Your task to perform on an android device: Open the phone app and click the voicemail tab. Image 0: 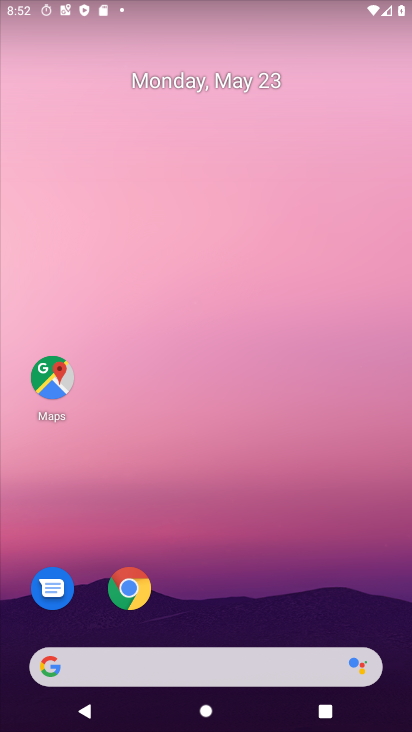
Step 0: drag from (396, 663) to (345, 91)
Your task to perform on an android device: Open the phone app and click the voicemail tab. Image 1: 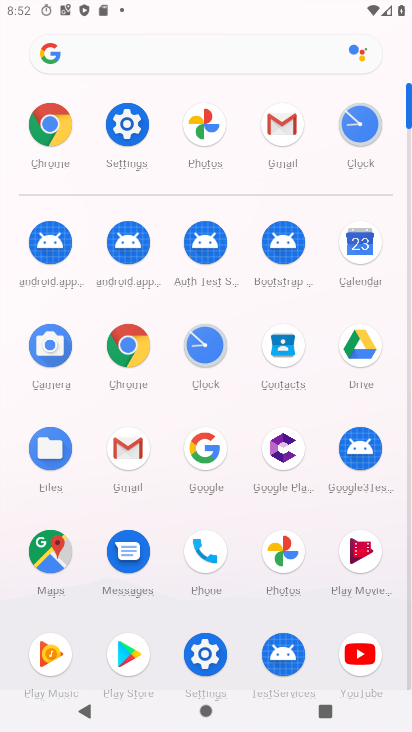
Step 1: click (192, 544)
Your task to perform on an android device: Open the phone app and click the voicemail tab. Image 2: 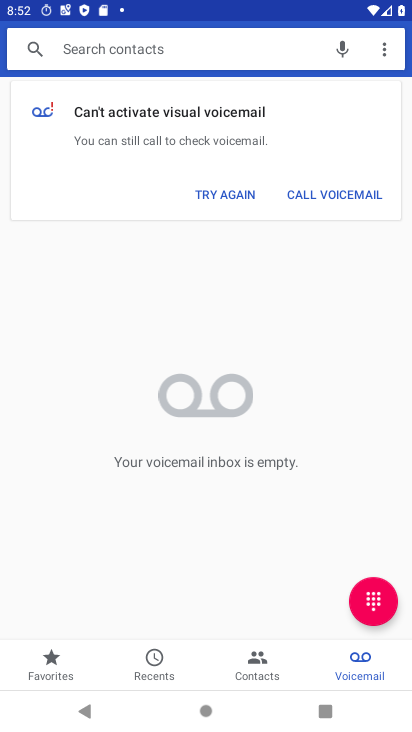
Step 2: click (359, 652)
Your task to perform on an android device: Open the phone app and click the voicemail tab. Image 3: 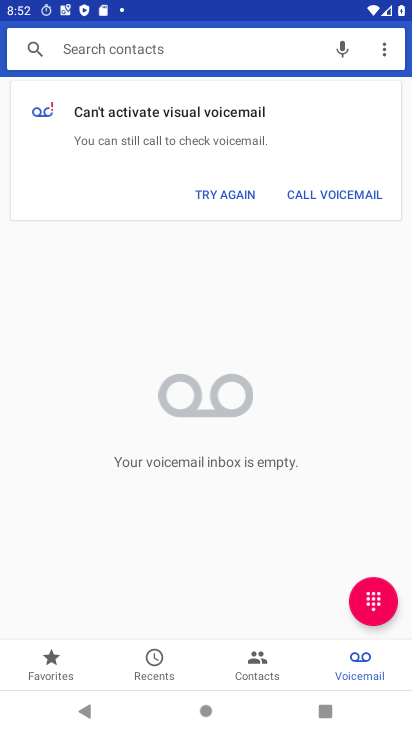
Step 3: task complete